Your task to perform on an android device: turn off improve location accuracy Image 0: 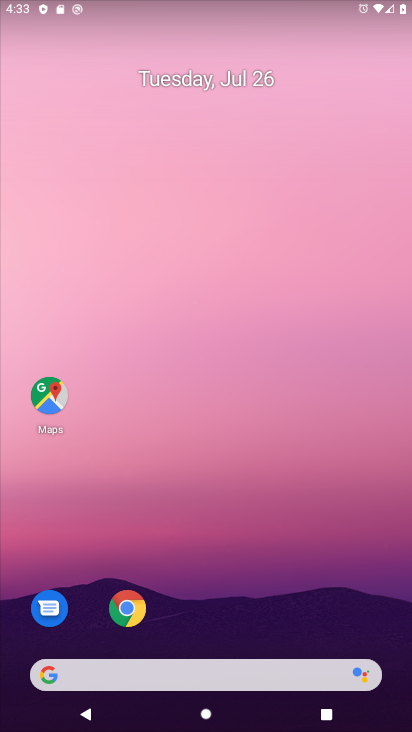
Step 0: drag from (394, 713) to (247, 122)
Your task to perform on an android device: turn off improve location accuracy Image 1: 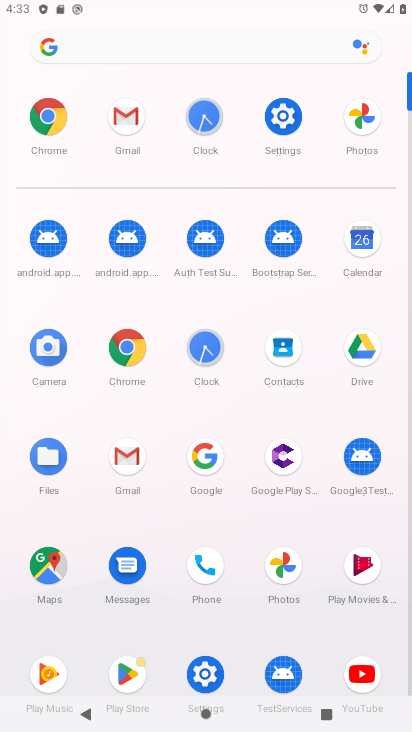
Step 1: click (287, 112)
Your task to perform on an android device: turn off improve location accuracy Image 2: 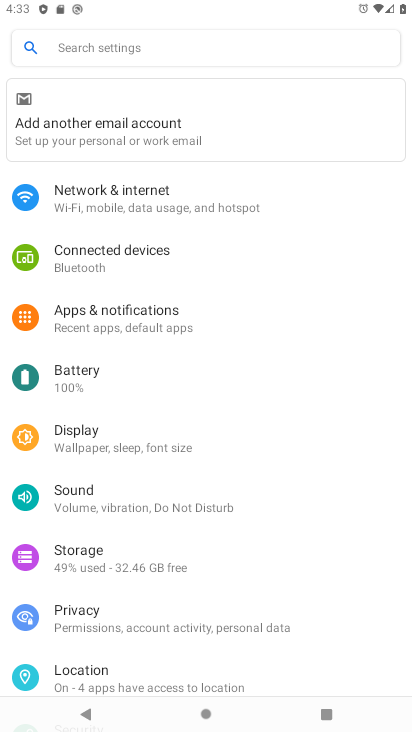
Step 2: click (81, 675)
Your task to perform on an android device: turn off improve location accuracy Image 3: 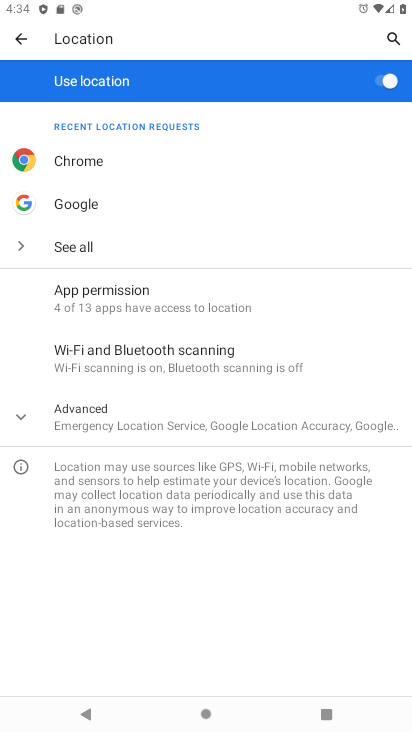
Step 3: click (14, 409)
Your task to perform on an android device: turn off improve location accuracy Image 4: 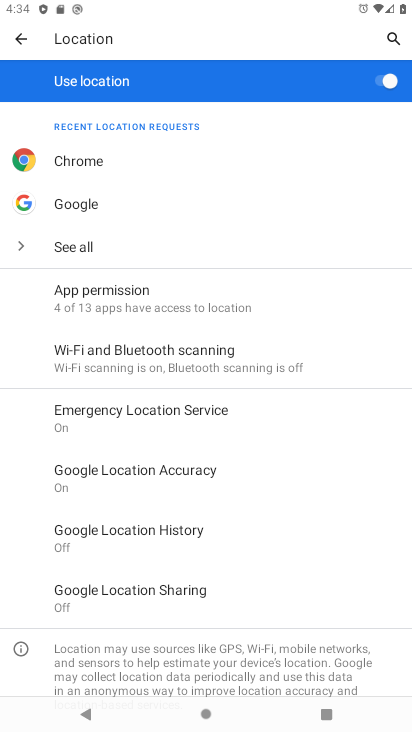
Step 4: click (145, 472)
Your task to perform on an android device: turn off improve location accuracy Image 5: 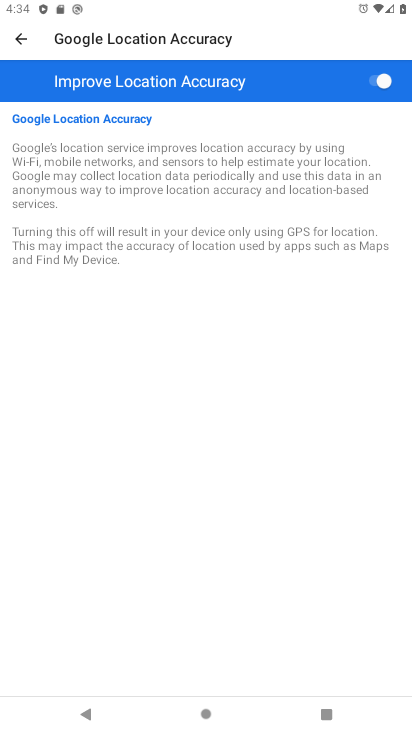
Step 5: click (375, 87)
Your task to perform on an android device: turn off improve location accuracy Image 6: 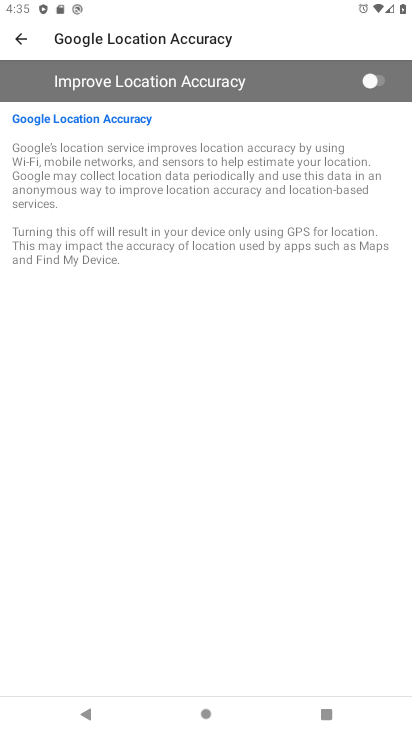
Step 6: task complete